Your task to perform on an android device: Open battery settings Image 0: 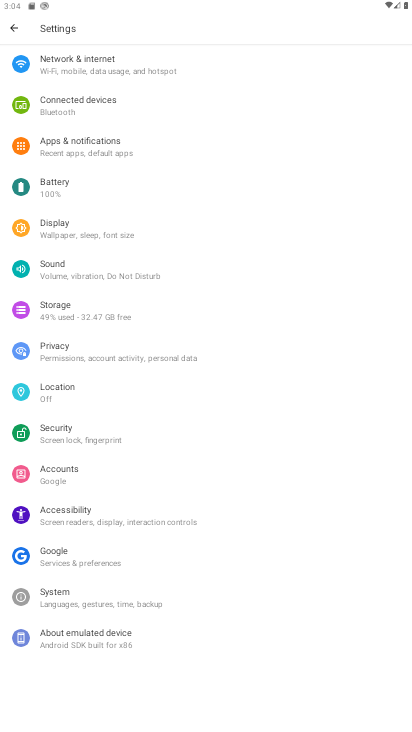
Step 0: click (61, 186)
Your task to perform on an android device: Open battery settings Image 1: 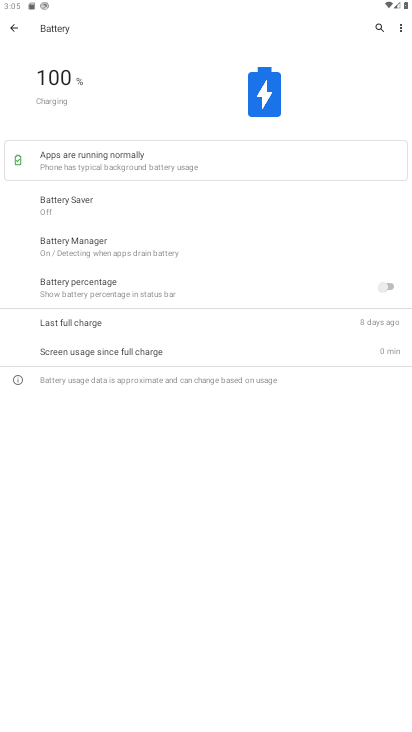
Step 1: click (397, 25)
Your task to perform on an android device: Open battery settings Image 2: 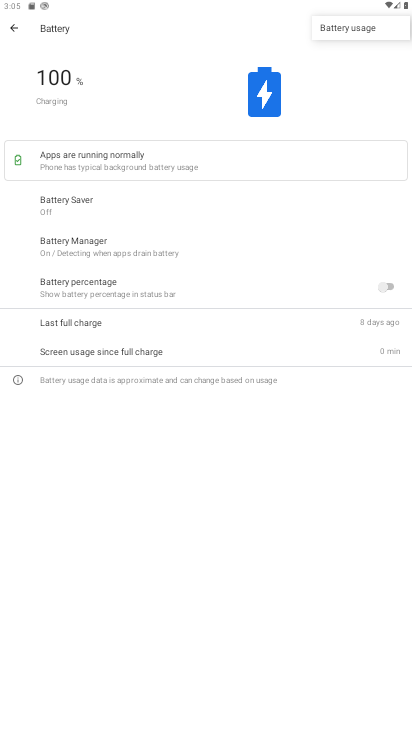
Step 2: task complete